Your task to perform on an android device: Open Amazon Image 0: 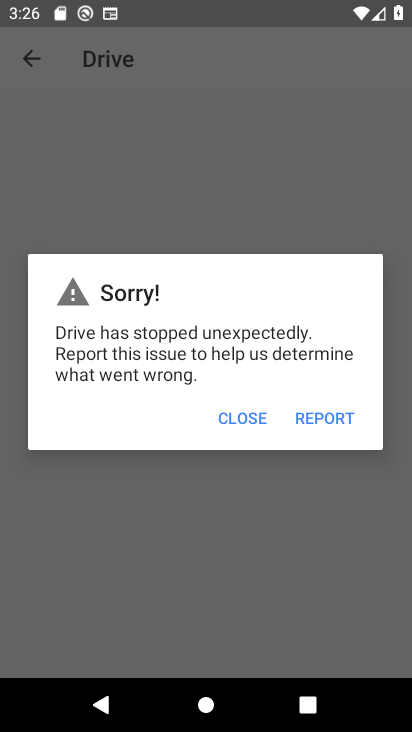
Step 0: press home button
Your task to perform on an android device: Open Amazon Image 1: 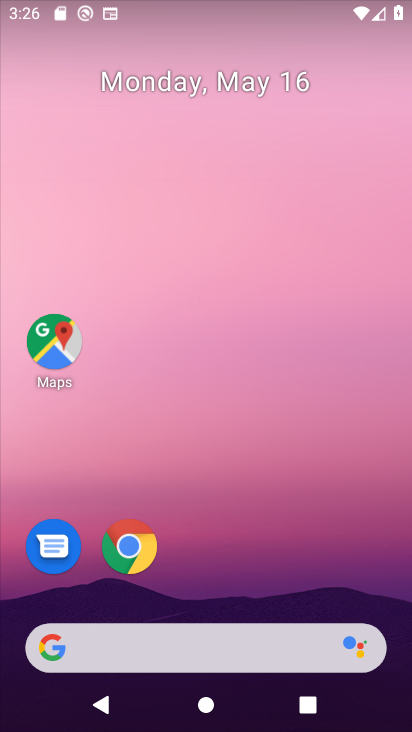
Step 1: drag from (380, 590) to (370, 124)
Your task to perform on an android device: Open Amazon Image 2: 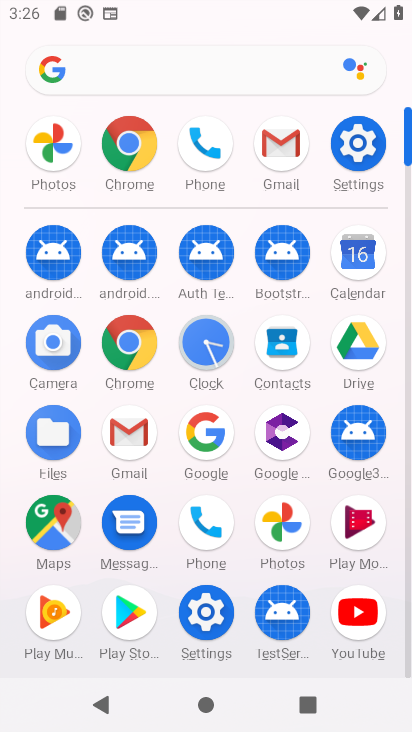
Step 2: click (129, 349)
Your task to perform on an android device: Open Amazon Image 3: 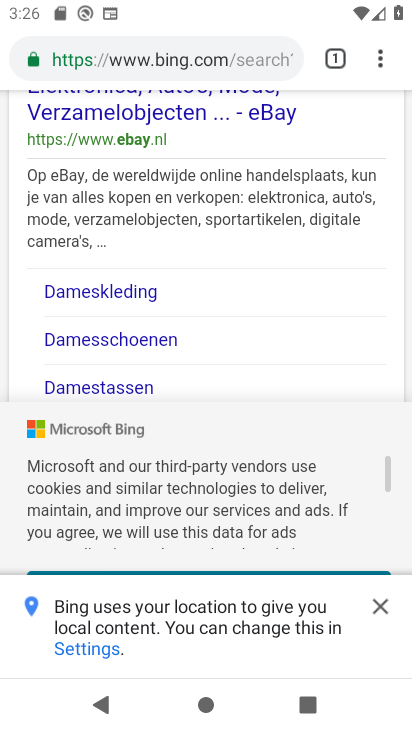
Step 3: click (208, 59)
Your task to perform on an android device: Open Amazon Image 4: 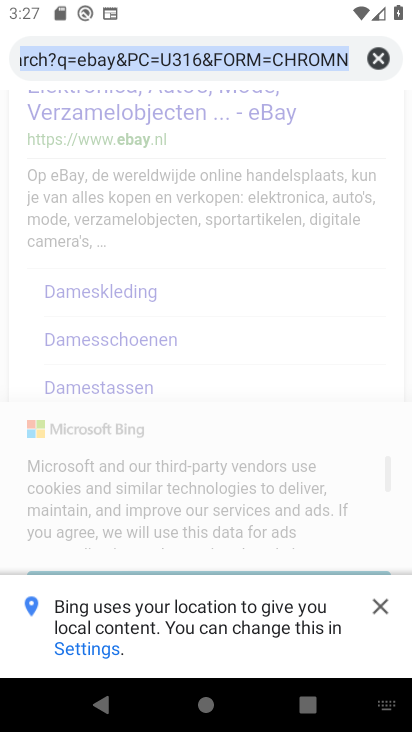
Step 4: click (380, 62)
Your task to perform on an android device: Open Amazon Image 5: 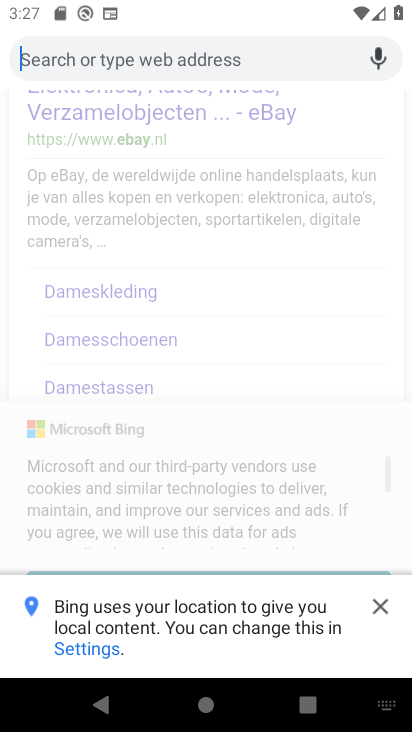
Step 5: type "amzone"
Your task to perform on an android device: Open Amazon Image 6: 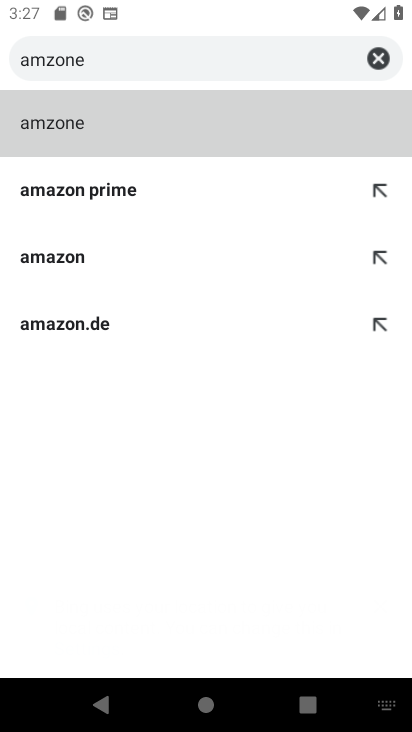
Step 6: click (100, 122)
Your task to perform on an android device: Open Amazon Image 7: 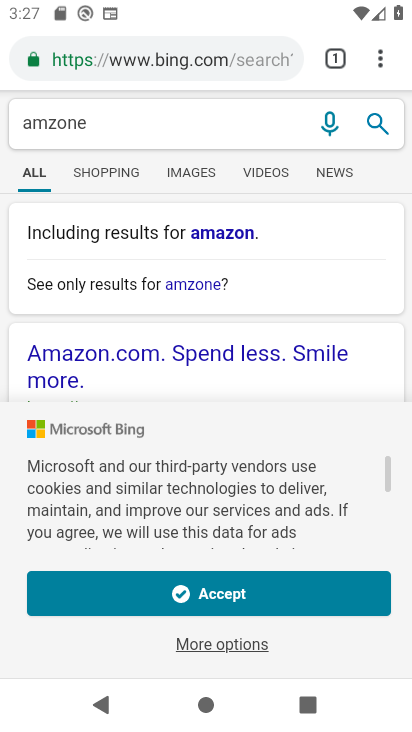
Step 7: click (247, 360)
Your task to perform on an android device: Open Amazon Image 8: 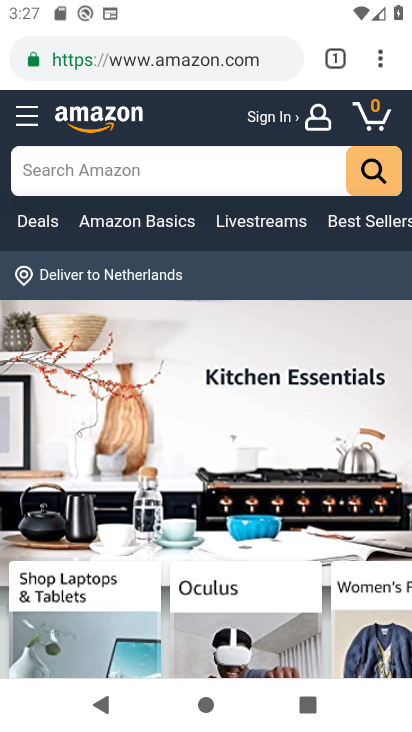
Step 8: task complete